Your task to perform on an android device: change notifications settings Image 0: 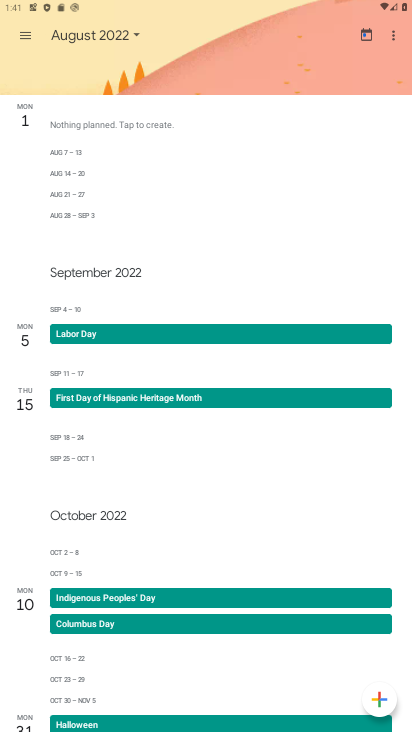
Step 0: press home button
Your task to perform on an android device: change notifications settings Image 1: 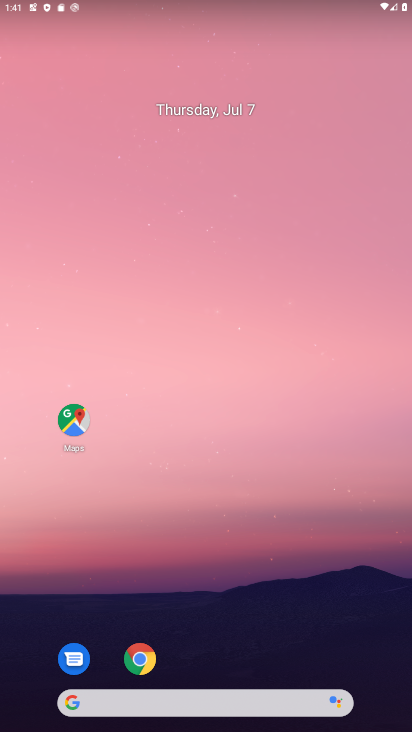
Step 1: drag from (214, 668) to (221, 150)
Your task to perform on an android device: change notifications settings Image 2: 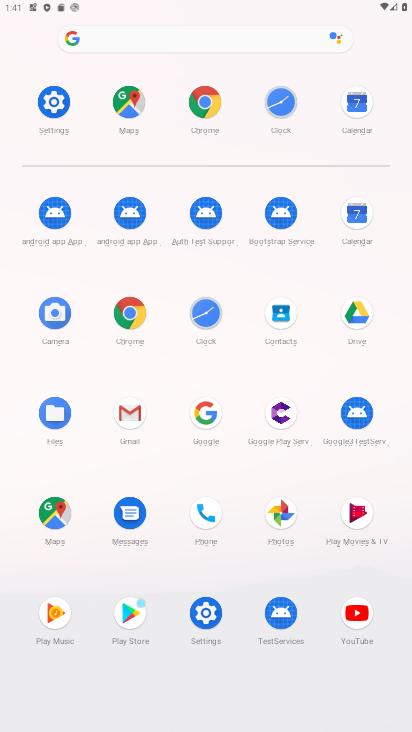
Step 2: click (48, 96)
Your task to perform on an android device: change notifications settings Image 3: 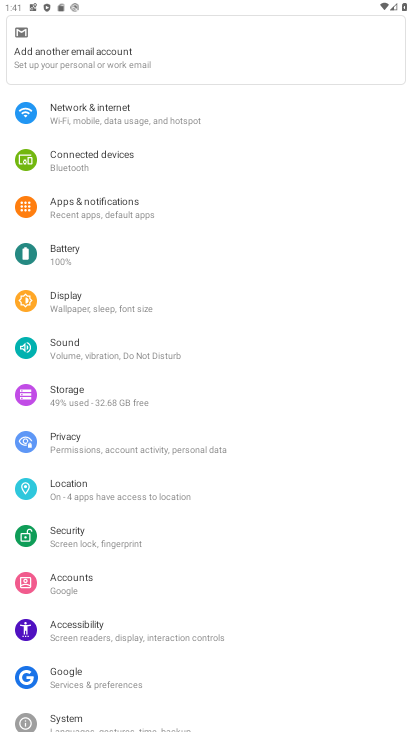
Step 3: click (94, 208)
Your task to perform on an android device: change notifications settings Image 4: 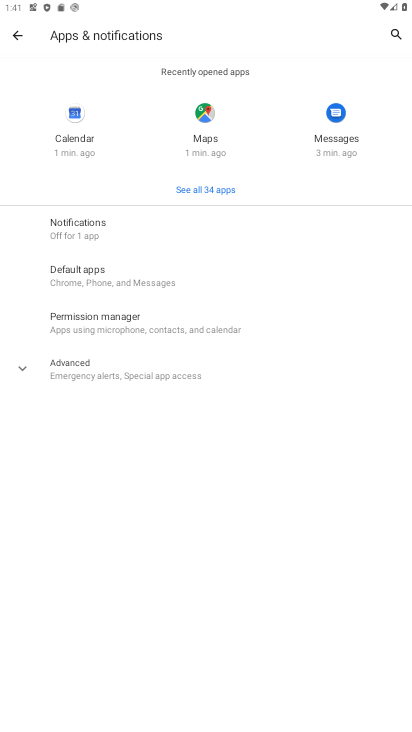
Step 4: click (106, 229)
Your task to perform on an android device: change notifications settings Image 5: 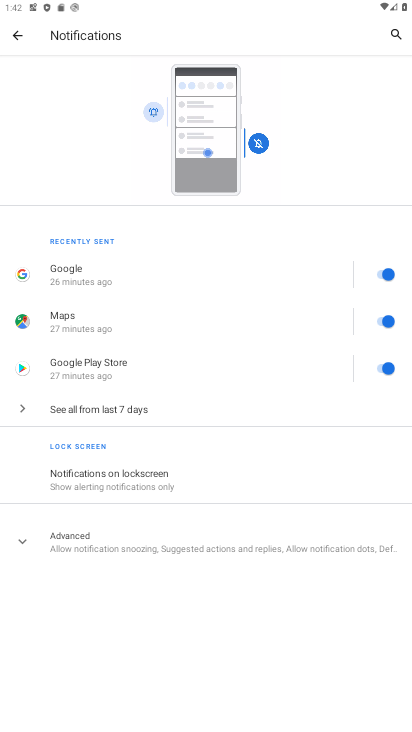
Step 5: click (28, 541)
Your task to perform on an android device: change notifications settings Image 6: 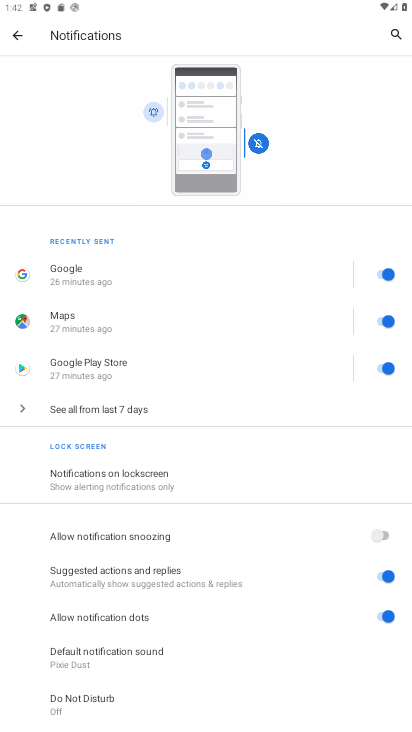
Step 6: click (384, 272)
Your task to perform on an android device: change notifications settings Image 7: 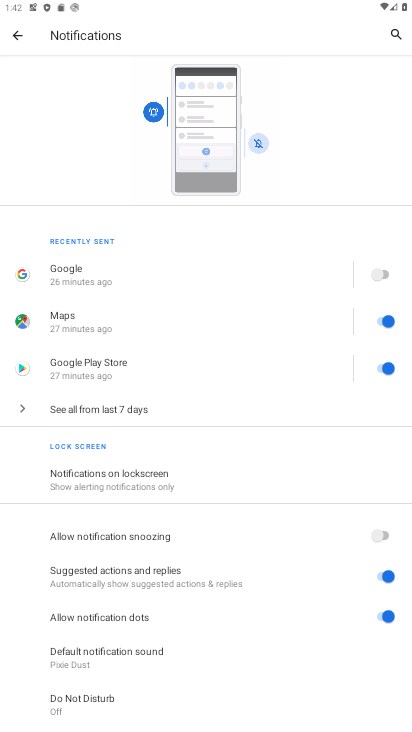
Step 7: click (378, 322)
Your task to perform on an android device: change notifications settings Image 8: 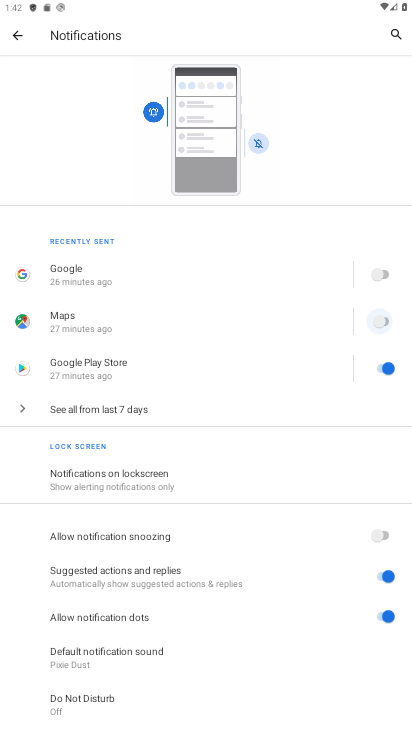
Step 8: click (381, 361)
Your task to perform on an android device: change notifications settings Image 9: 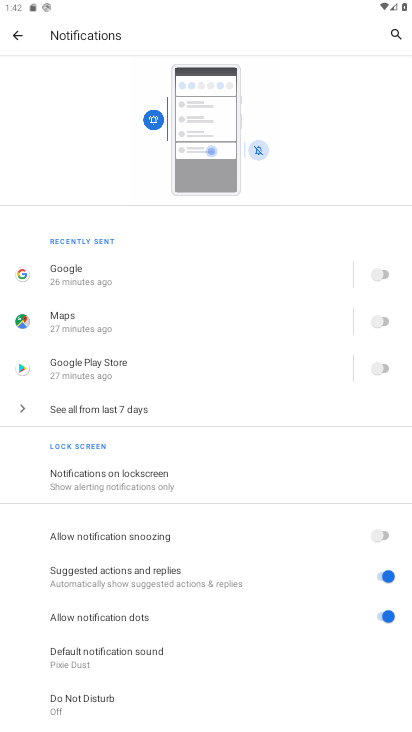
Step 9: click (374, 583)
Your task to perform on an android device: change notifications settings Image 10: 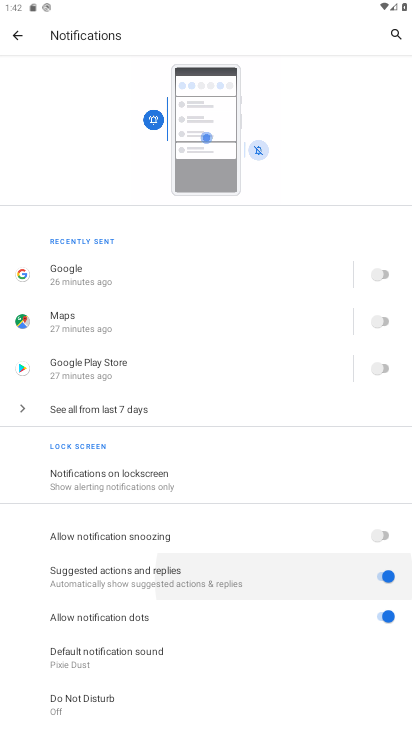
Step 10: click (378, 613)
Your task to perform on an android device: change notifications settings Image 11: 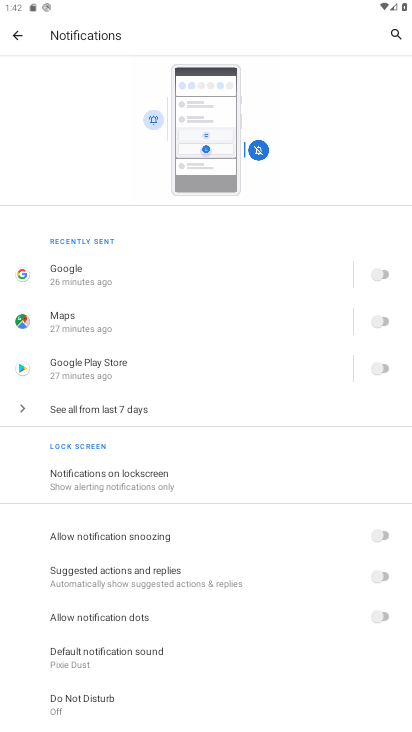
Step 11: task complete